Your task to perform on an android device: read, delete, or share a saved page in the chrome app Image 0: 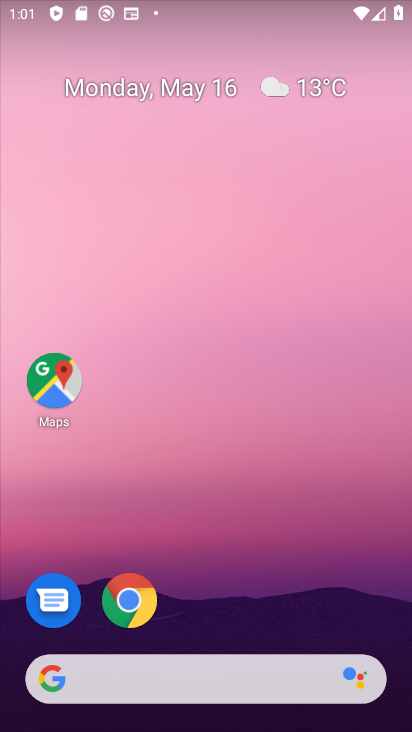
Step 0: click (128, 601)
Your task to perform on an android device: read, delete, or share a saved page in the chrome app Image 1: 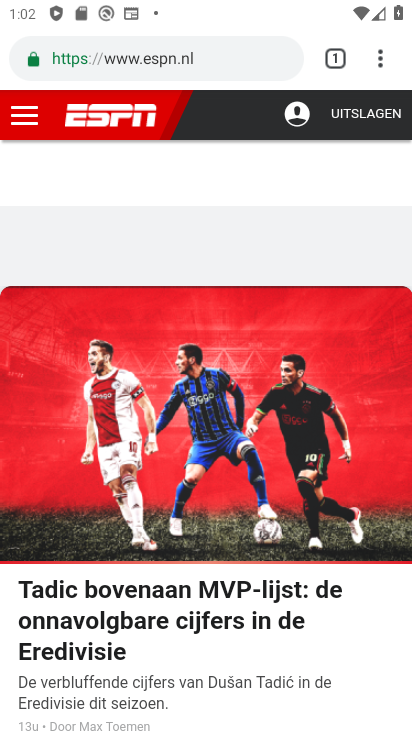
Step 1: click (380, 58)
Your task to perform on an android device: read, delete, or share a saved page in the chrome app Image 2: 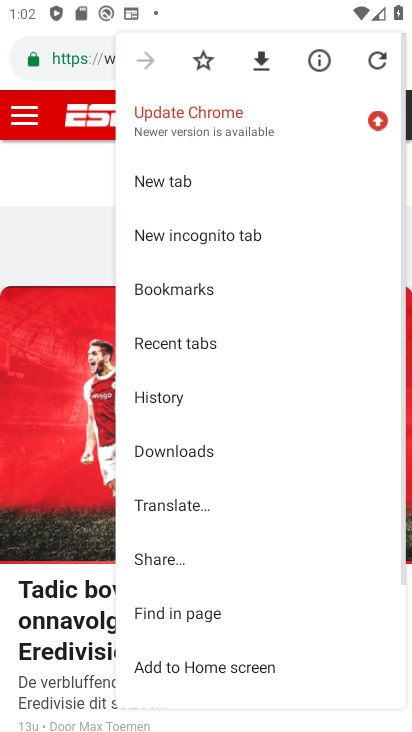
Step 2: click (172, 292)
Your task to perform on an android device: read, delete, or share a saved page in the chrome app Image 3: 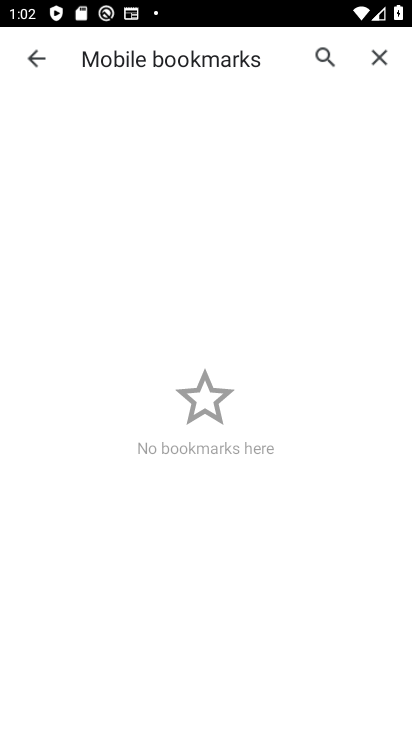
Step 3: task complete